Your task to perform on an android device: empty trash in the gmail app Image 0: 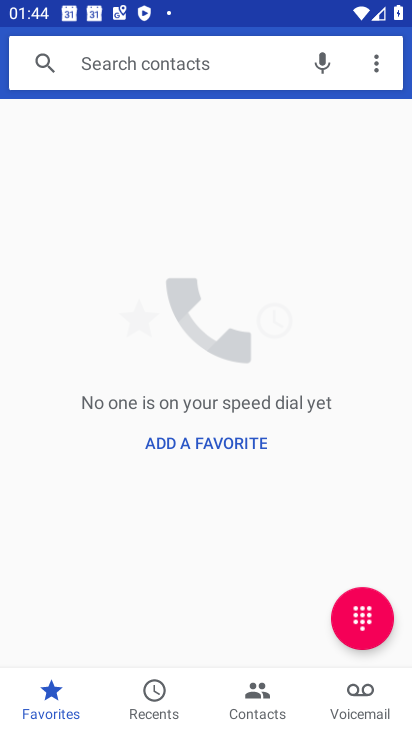
Step 0: press home button
Your task to perform on an android device: empty trash in the gmail app Image 1: 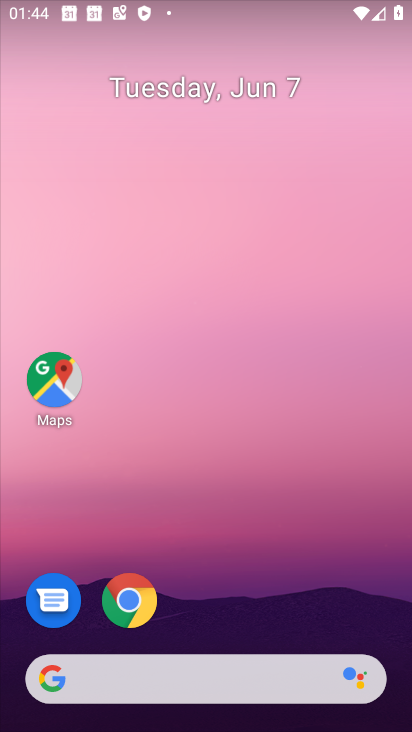
Step 1: drag from (247, 721) to (252, 6)
Your task to perform on an android device: empty trash in the gmail app Image 2: 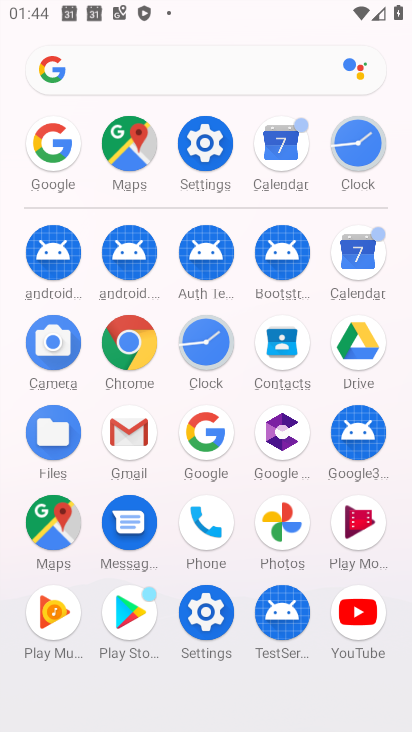
Step 2: click (119, 443)
Your task to perform on an android device: empty trash in the gmail app Image 3: 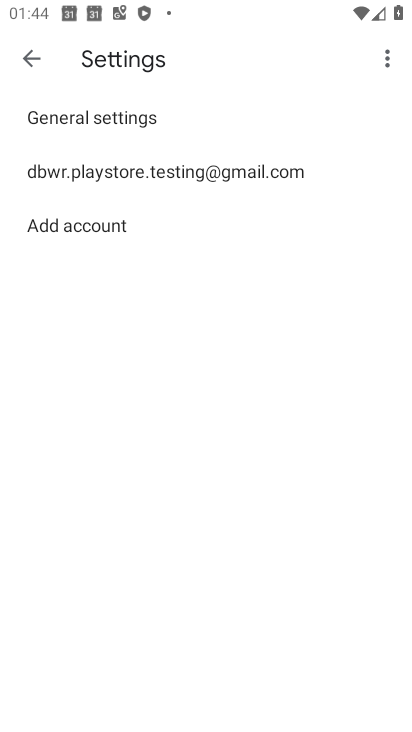
Step 3: click (19, 57)
Your task to perform on an android device: empty trash in the gmail app Image 4: 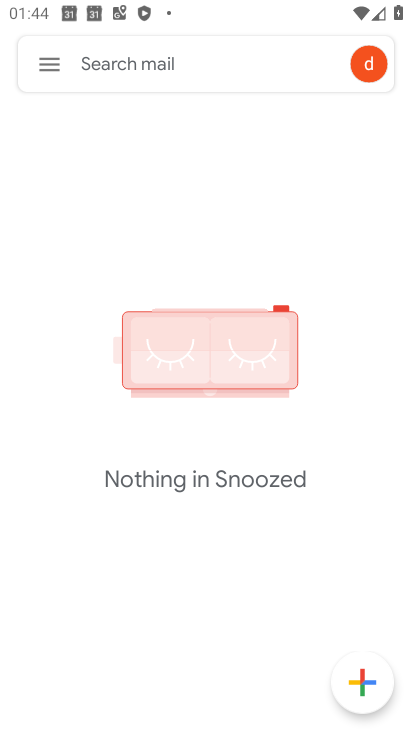
Step 4: click (51, 67)
Your task to perform on an android device: empty trash in the gmail app Image 5: 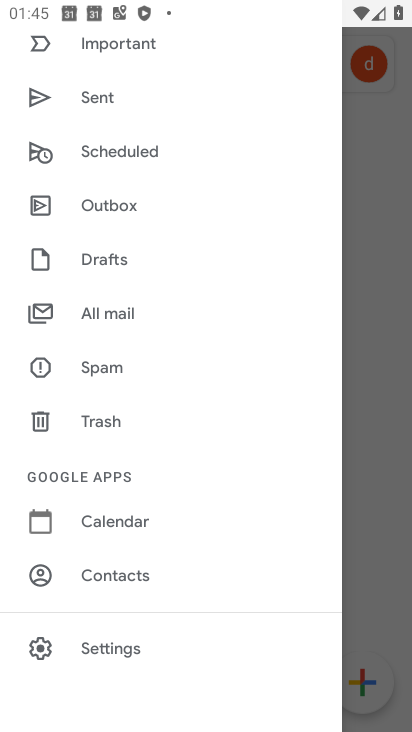
Step 5: click (102, 412)
Your task to perform on an android device: empty trash in the gmail app Image 6: 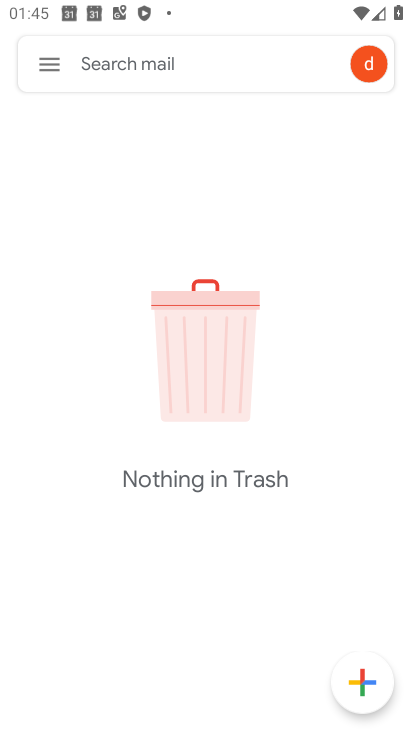
Step 6: task complete